Your task to perform on an android device: Toggle the flashlight Image 0: 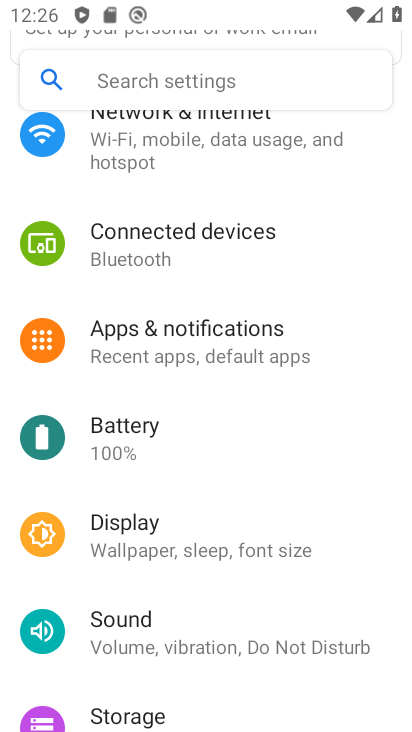
Step 0: click (227, 96)
Your task to perform on an android device: Toggle the flashlight Image 1: 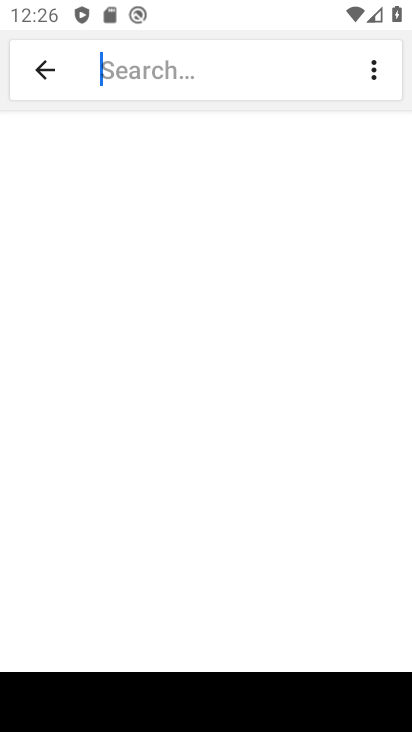
Step 1: type "flashlight"
Your task to perform on an android device: Toggle the flashlight Image 2: 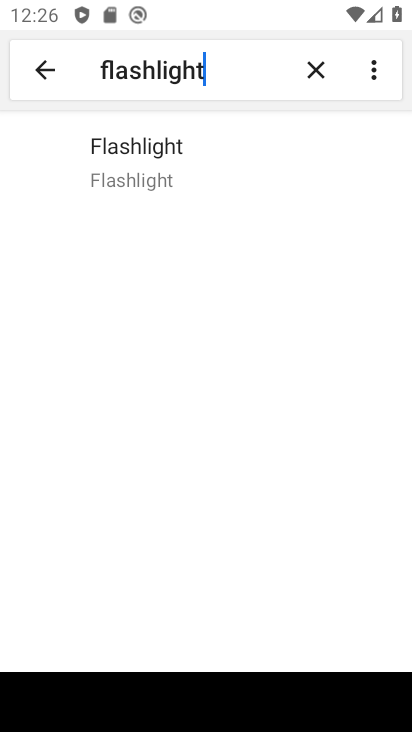
Step 2: click (222, 142)
Your task to perform on an android device: Toggle the flashlight Image 3: 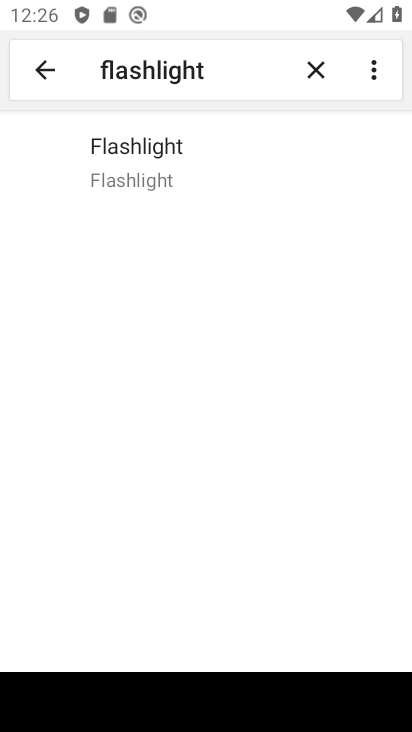
Step 3: click (116, 159)
Your task to perform on an android device: Toggle the flashlight Image 4: 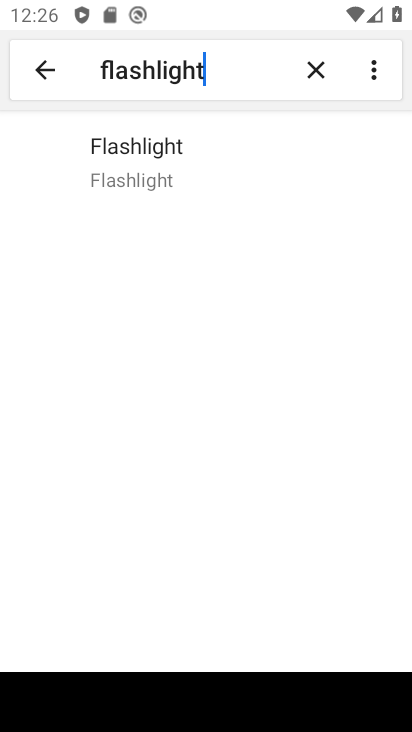
Step 4: task complete